Your task to perform on an android device: Open battery settings Image 0: 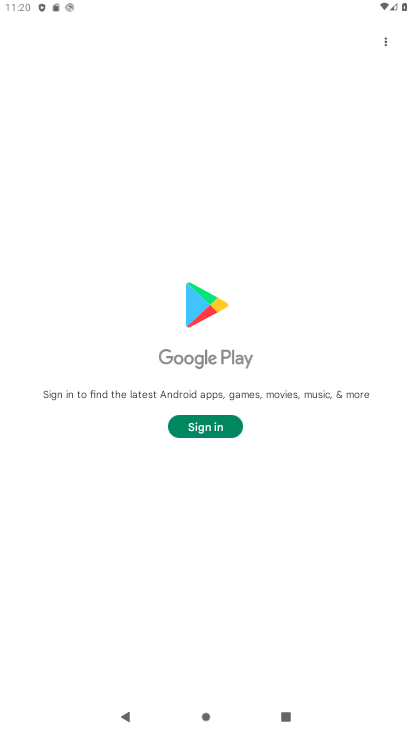
Step 0: press home button
Your task to perform on an android device: Open battery settings Image 1: 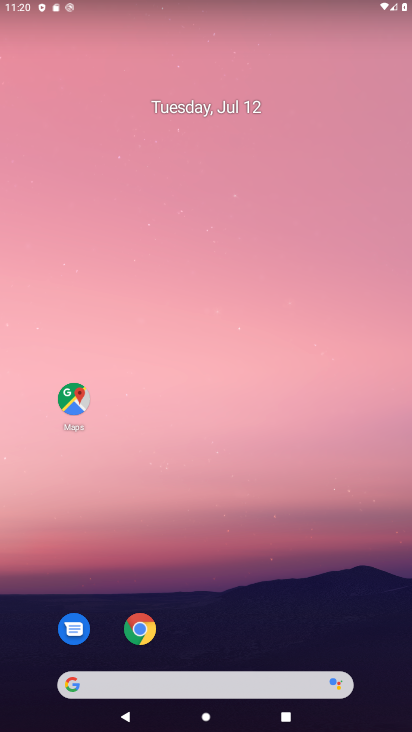
Step 1: drag from (195, 566) to (180, 154)
Your task to perform on an android device: Open battery settings Image 2: 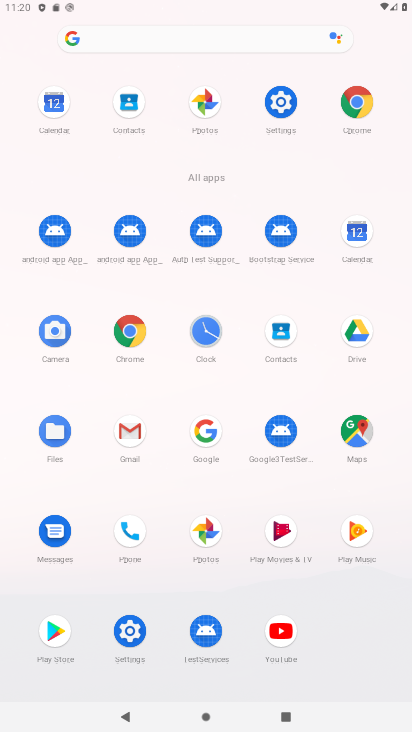
Step 2: click (279, 103)
Your task to perform on an android device: Open battery settings Image 3: 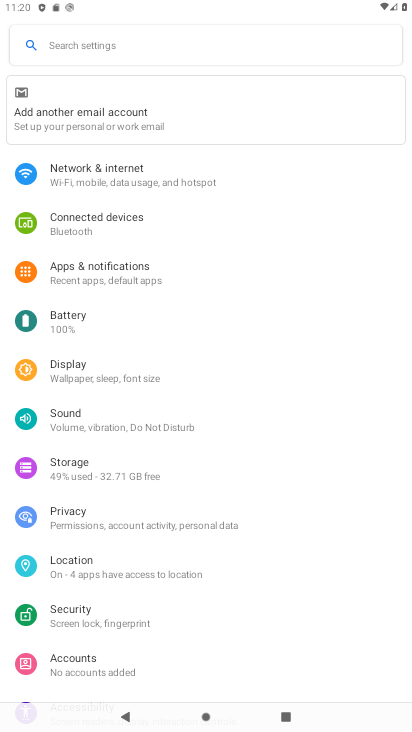
Step 3: click (63, 321)
Your task to perform on an android device: Open battery settings Image 4: 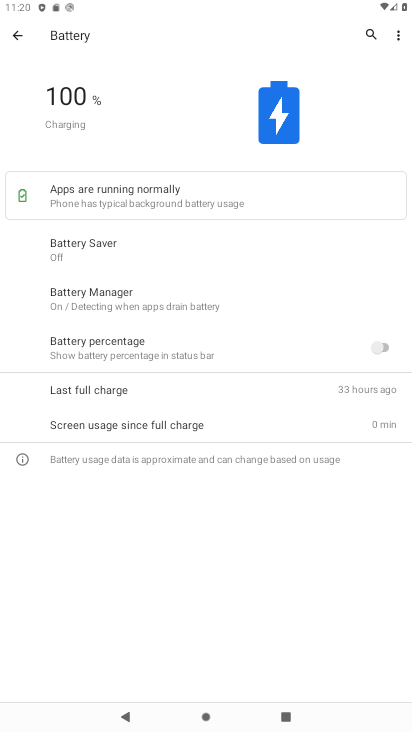
Step 4: task complete